Your task to perform on an android device: Open privacy settings Image 0: 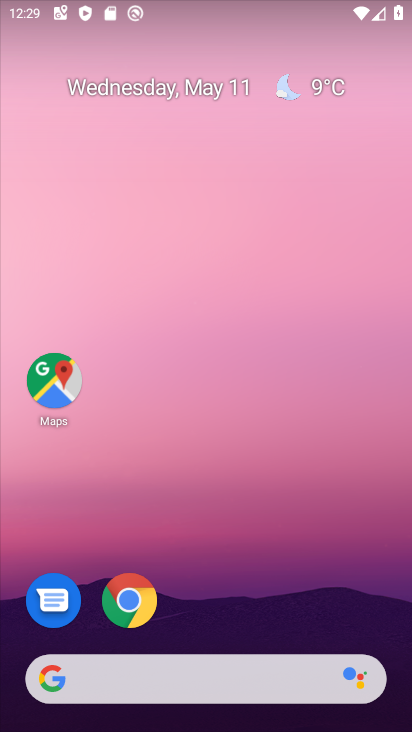
Step 0: drag from (213, 722) to (277, 165)
Your task to perform on an android device: Open privacy settings Image 1: 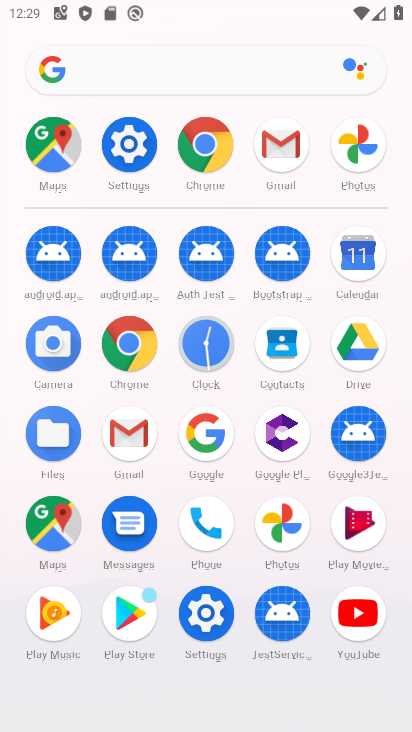
Step 1: click (139, 163)
Your task to perform on an android device: Open privacy settings Image 2: 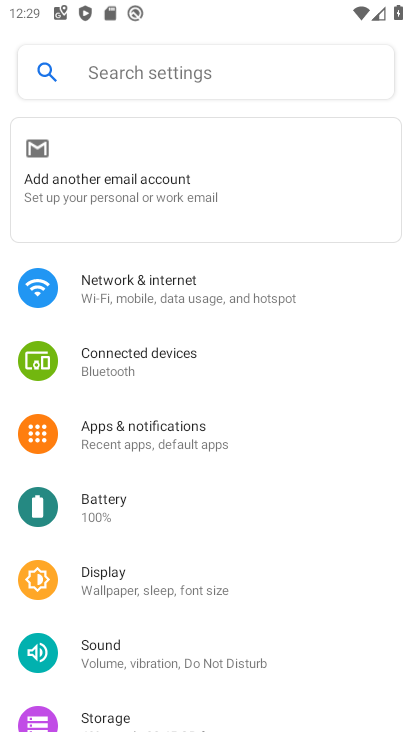
Step 2: drag from (196, 682) to (268, 92)
Your task to perform on an android device: Open privacy settings Image 3: 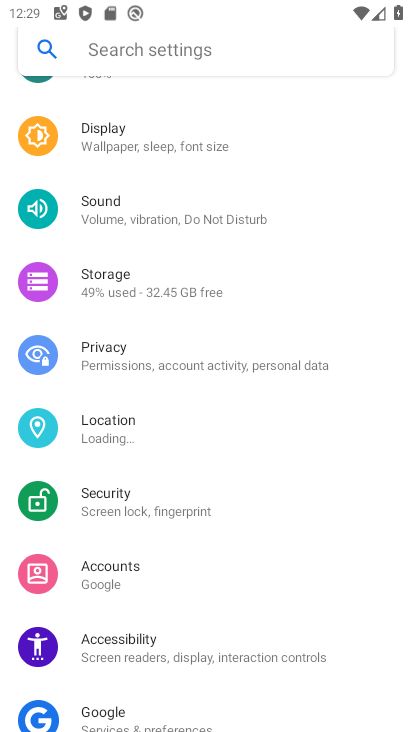
Step 3: click (198, 350)
Your task to perform on an android device: Open privacy settings Image 4: 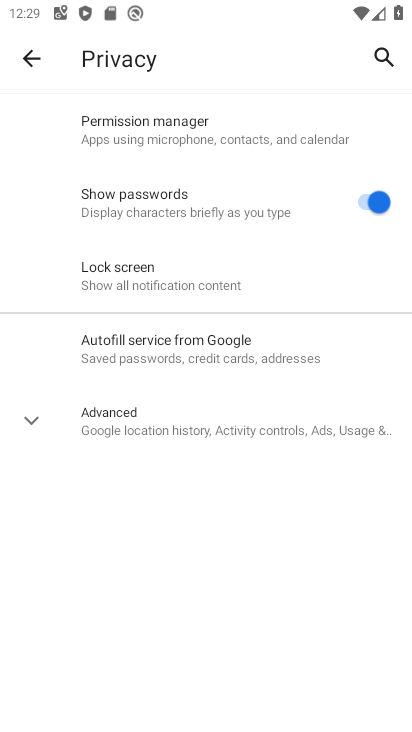
Step 4: task complete